Your task to perform on an android device: turn on the 24-hour format for clock Image 0: 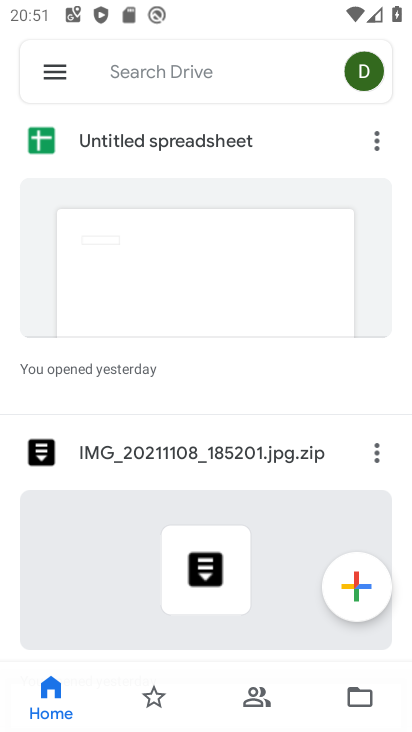
Step 0: press back button
Your task to perform on an android device: turn on the 24-hour format for clock Image 1: 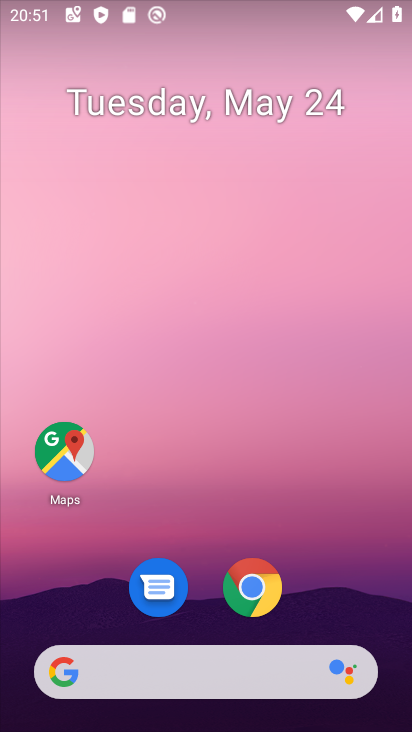
Step 1: drag from (285, 404) to (199, 7)
Your task to perform on an android device: turn on the 24-hour format for clock Image 2: 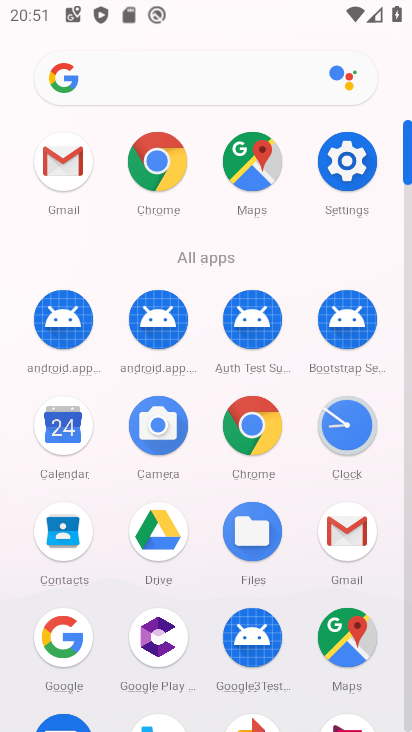
Step 2: drag from (16, 571) to (16, 227)
Your task to perform on an android device: turn on the 24-hour format for clock Image 3: 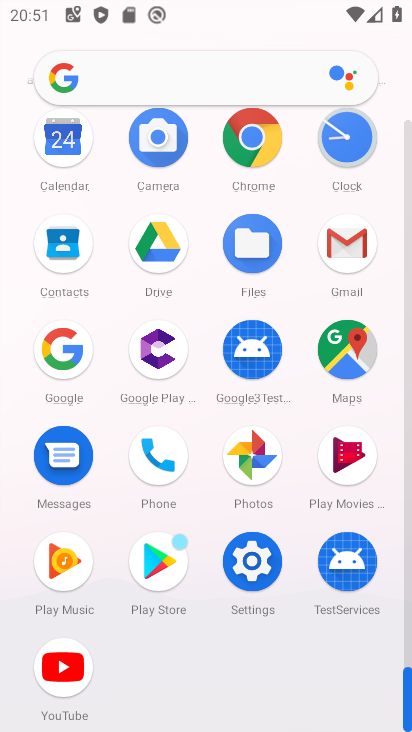
Step 3: click (347, 132)
Your task to perform on an android device: turn on the 24-hour format for clock Image 4: 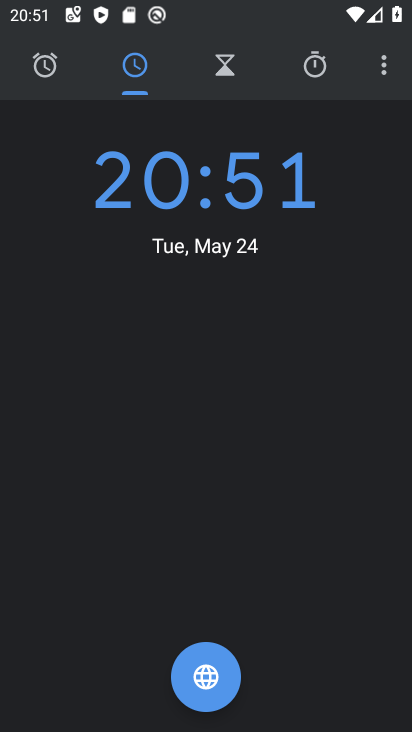
Step 4: drag from (383, 66) to (294, 134)
Your task to perform on an android device: turn on the 24-hour format for clock Image 5: 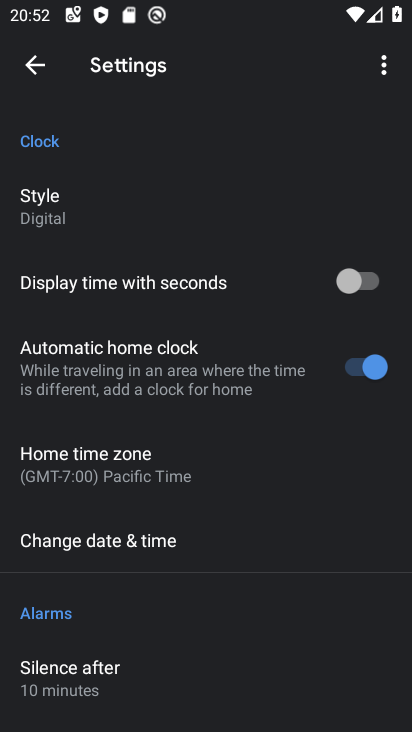
Step 5: drag from (186, 510) to (204, 116)
Your task to perform on an android device: turn on the 24-hour format for clock Image 6: 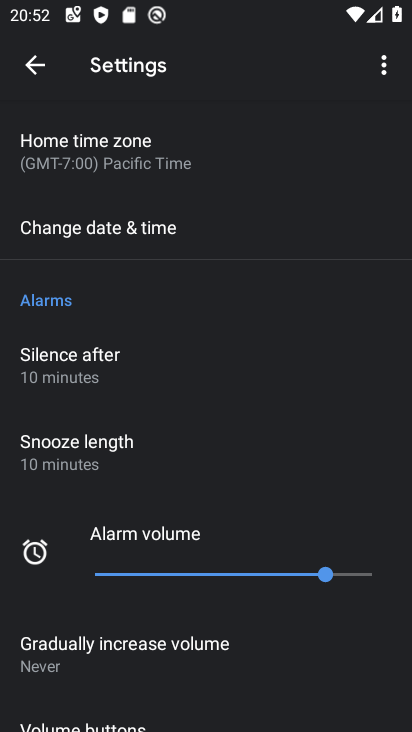
Step 6: click (119, 227)
Your task to perform on an android device: turn on the 24-hour format for clock Image 7: 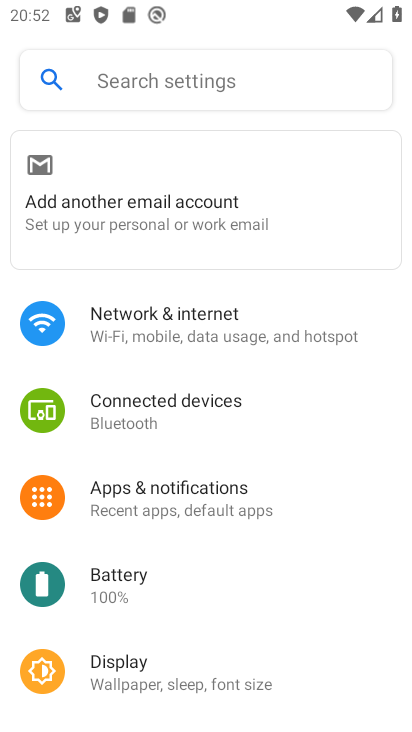
Step 7: task complete